Your task to perform on an android device: Open network settings Image 0: 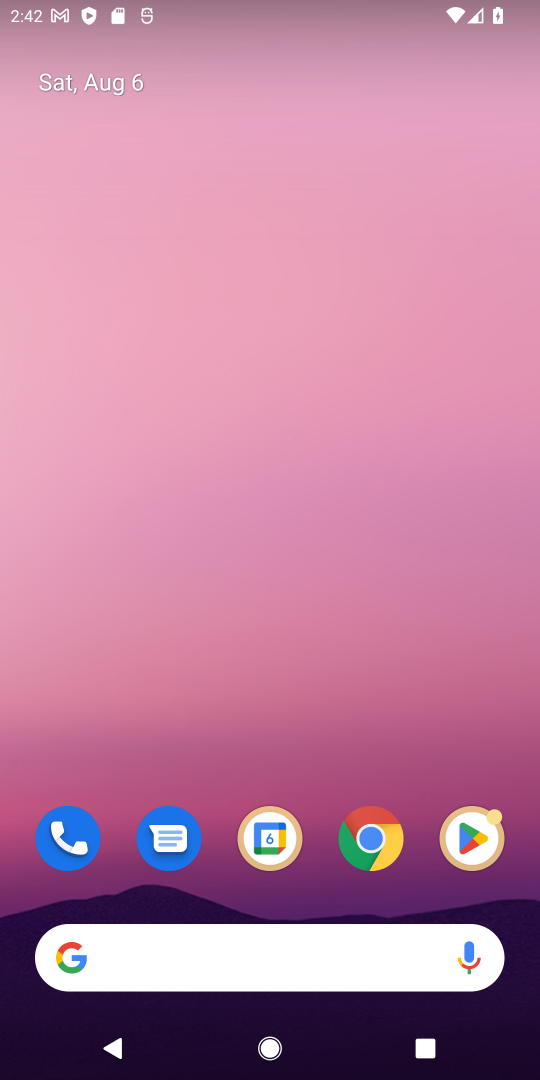
Step 0: drag from (138, 623) to (396, 125)
Your task to perform on an android device: Open network settings Image 1: 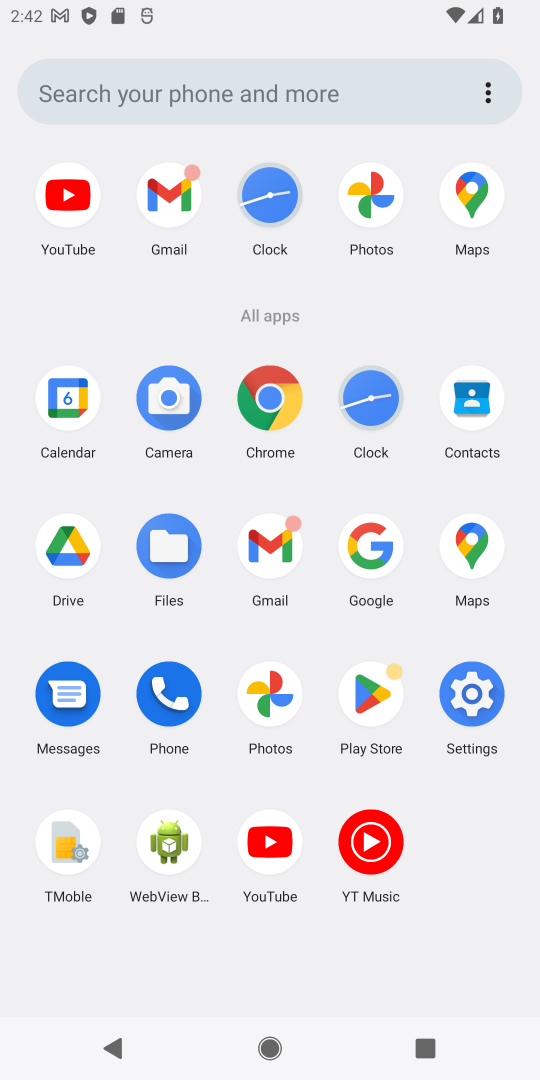
Step 1: click (468, 684)
Your task to perform on an android device: Open network settings Image 2: 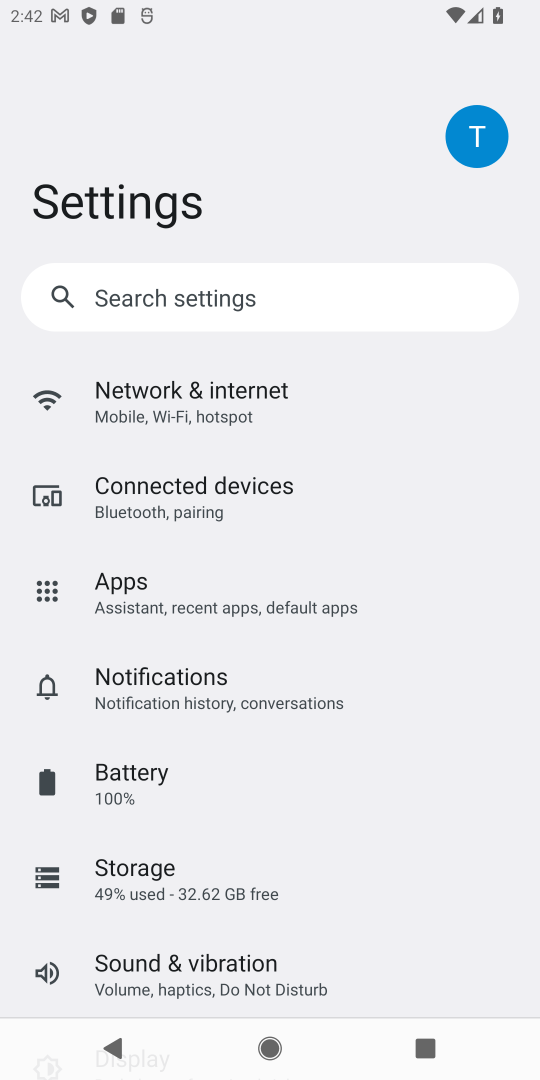
Step 2: click (177, 408)
Your task to perform on an android device: Open network settings Image 3: 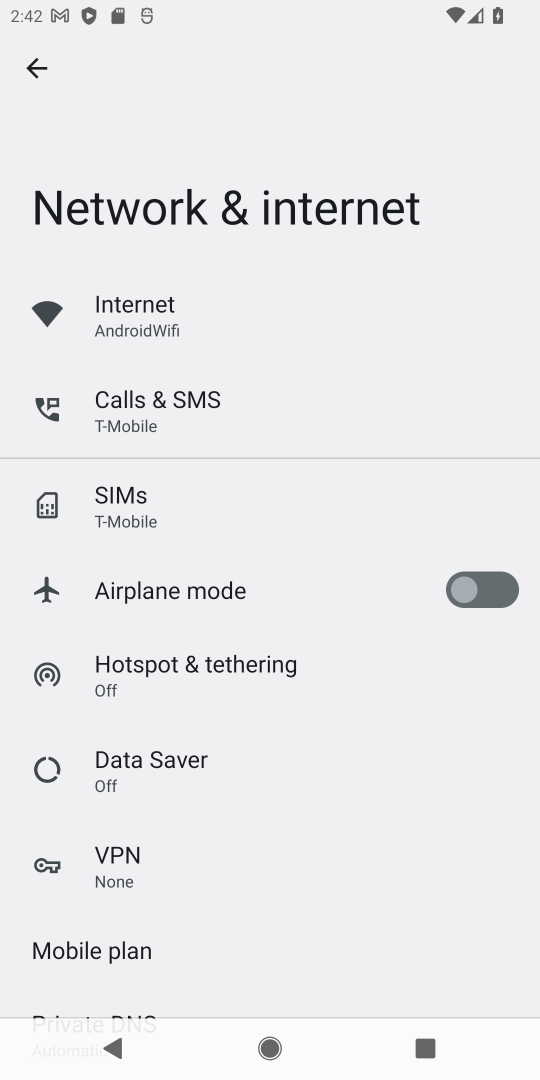
Step 3: click (139, 312)
Your task to perform on an android device: Open network settings Image 4: 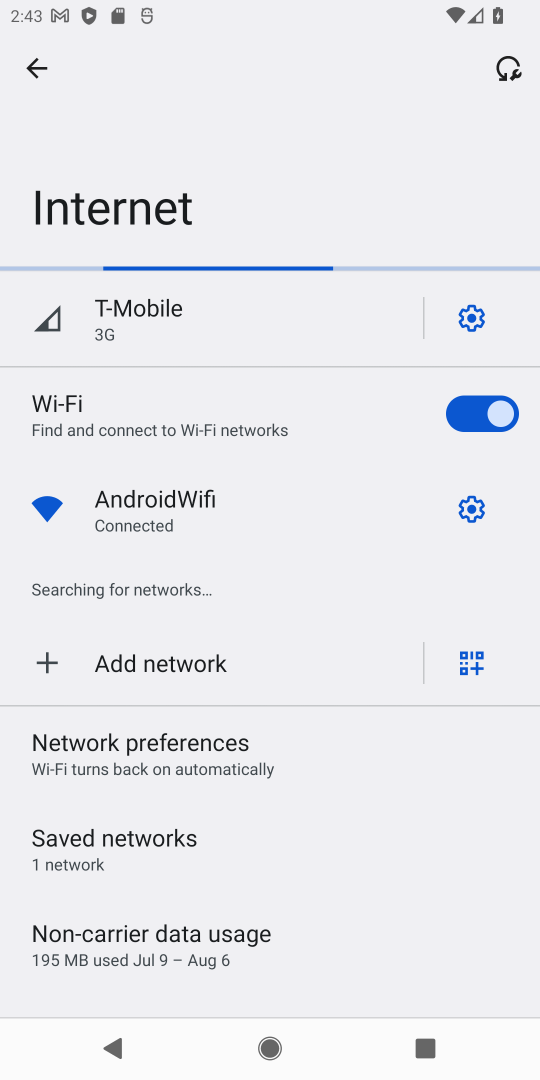
Step 4: task complete